Your task to perform on an android device: remove spam from my inbox in the gmail app Image 0: 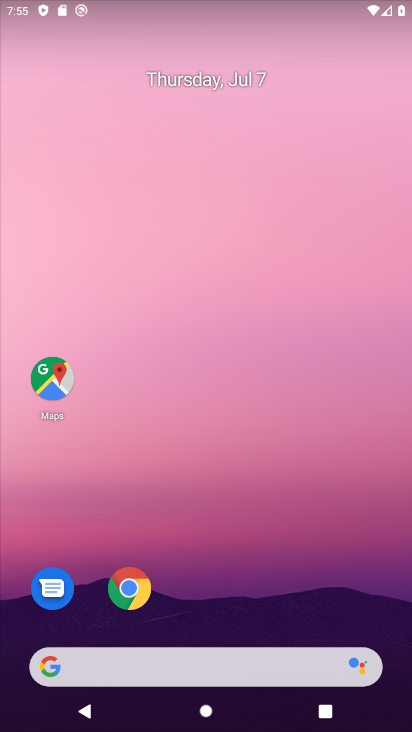
Step 0: drag from (36, 704) to (197, 2)
Your task to perform on an android device: remove spam from my inbox in the gmail app Image 1: 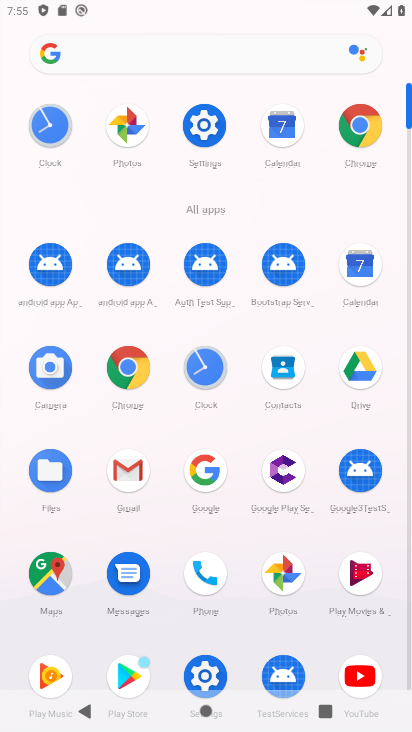
Step 1: click (114, 469)
Your task to perform on an android device: remove spam from my inbox in the gmail app Image 2: 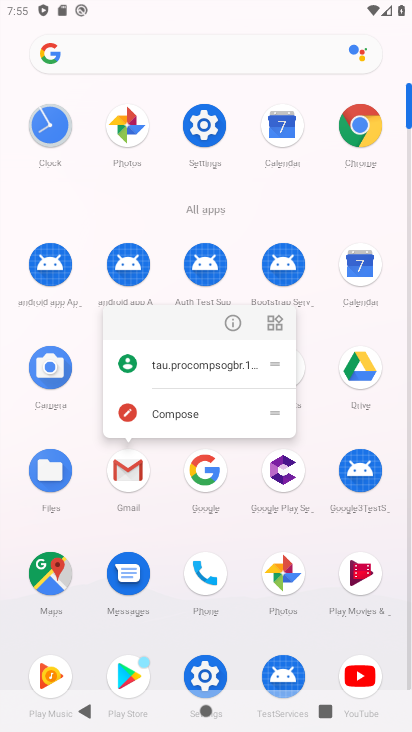
Step 2: click (130, 474)
Your task to perform on an android device: remove spam from my inbox in the gmail app Image 3: 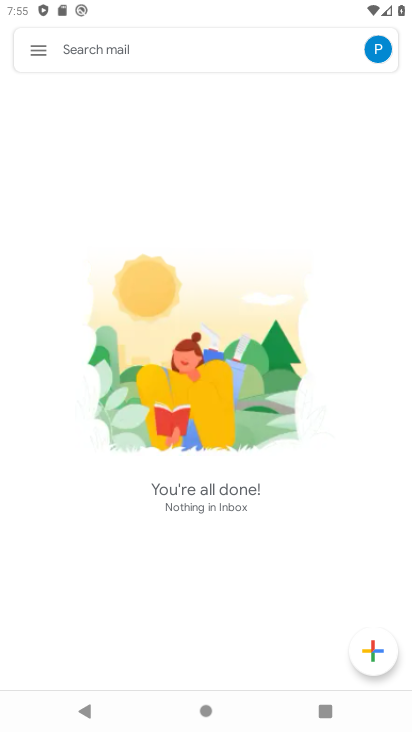
Step 3: click (17, 47)
Your task to perform on an android device: remove spam from my inbox in the gmail app Image 4: 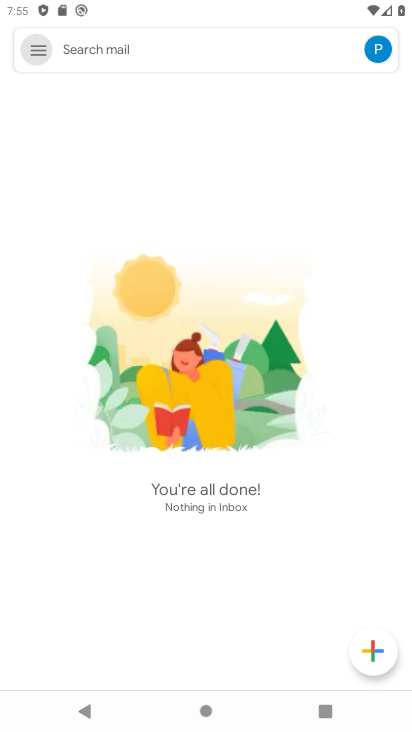
Step 4: click (32, 49)
Your task to perform on an android device: remove spam from my inbox in the gmail app Image 5: 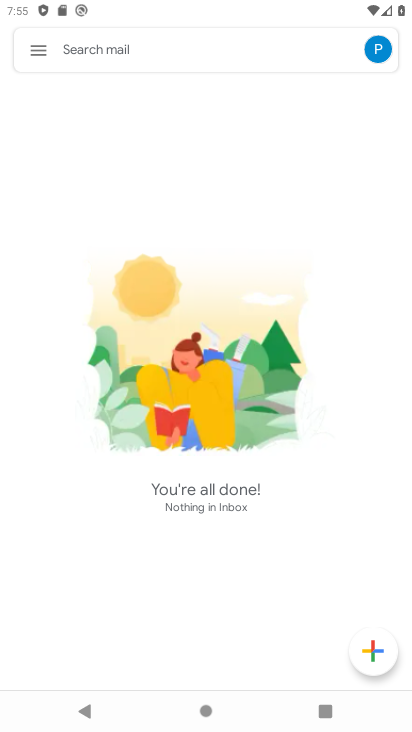
Step 5: click (33, 53)
Your task to perform on an android device: remove spam from my inbox in the gmail app Image 6: 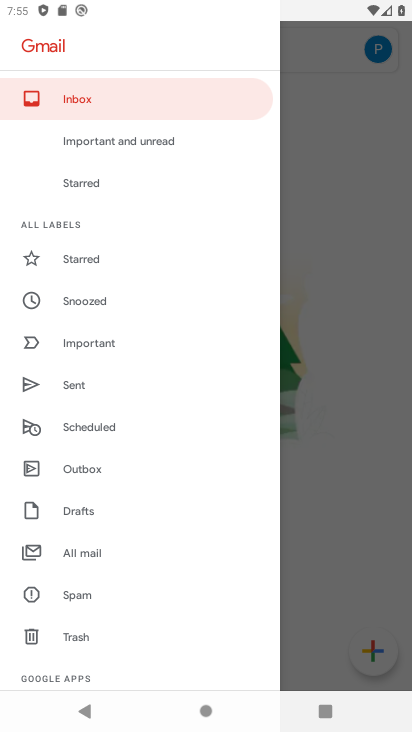
Step 6: click (79, 602)
Your task to perform on an android device: remove spam from my inbox in the gmail app Image 7: 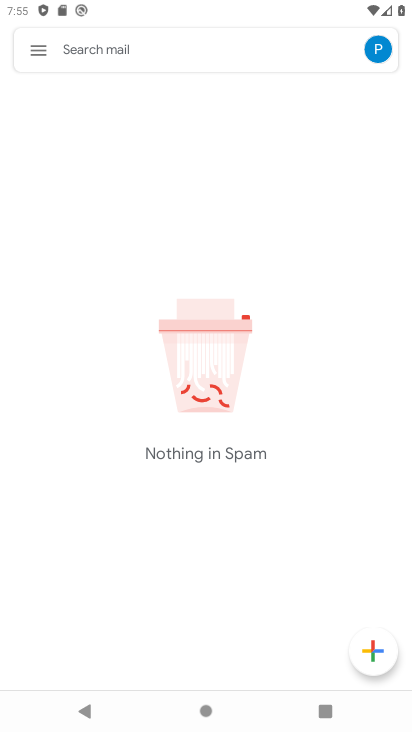
Step 7: task complete